Your task to perform on an android device: When is my next appointment? Image 0: 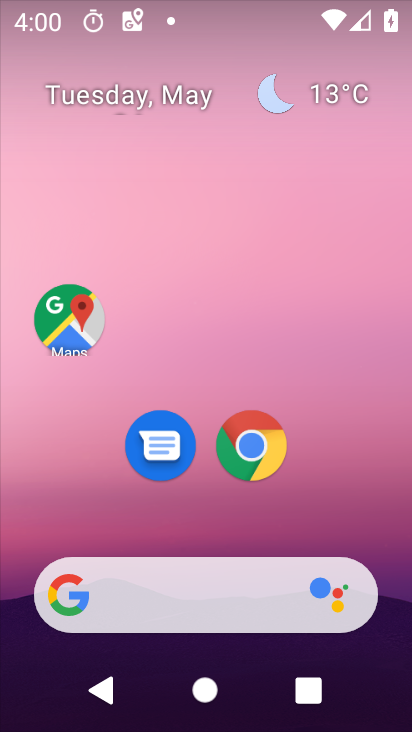
Step 0: drag from (212, 533) to (228, 59)
Your task to perform on an android device: When is my next appointment? Image 1: 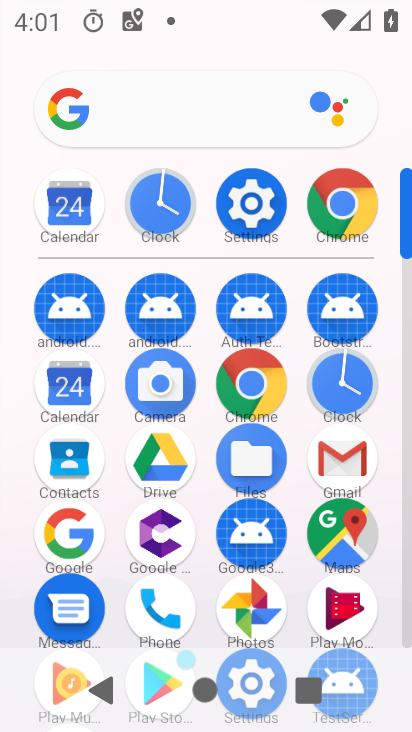
Step 1: click (68, 380)
Your task to perform on an android device: When is my next appointment? Image 2: 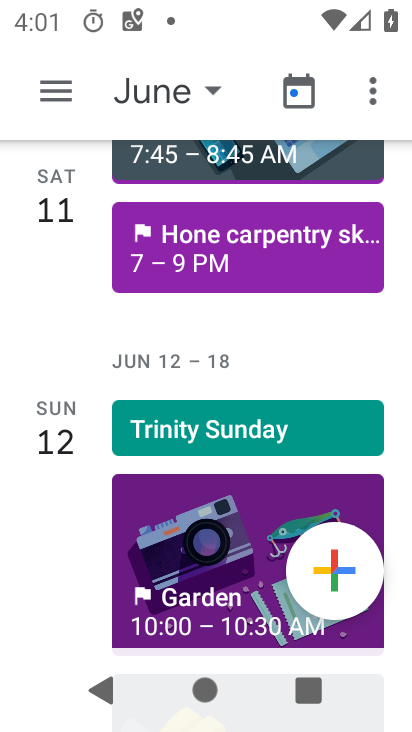
Step 2: click (78, 457)
Your task to perform on an android device: When is my next appointment? Image 3: 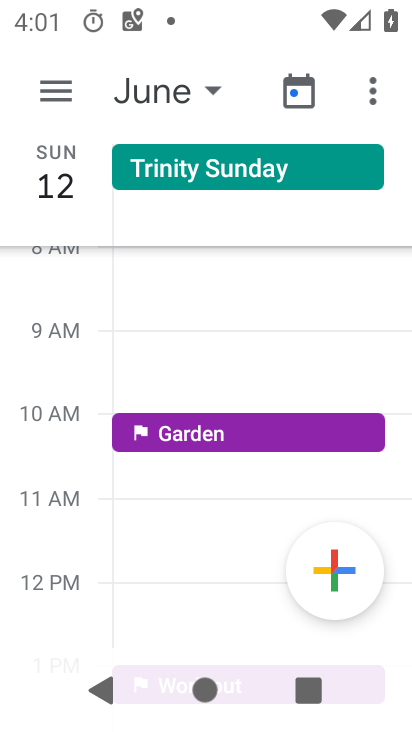
Step 3: click (61, 90)
Your task to perform on an android device: When is my next appointment? Image 4: 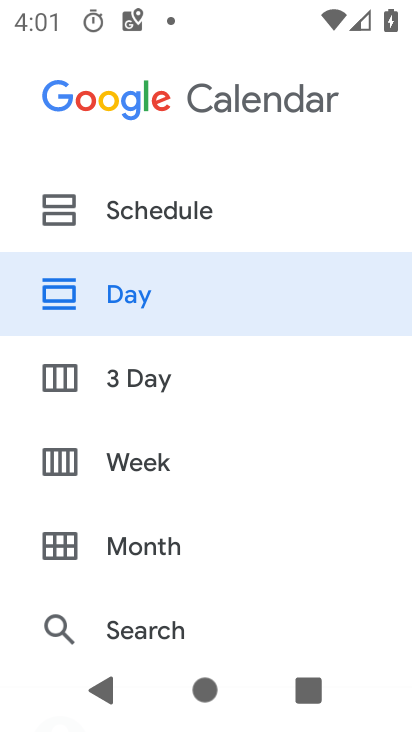
Step 4: click (105, 461)
Your task to perform on an android device: When is my next appointment? Image 5: 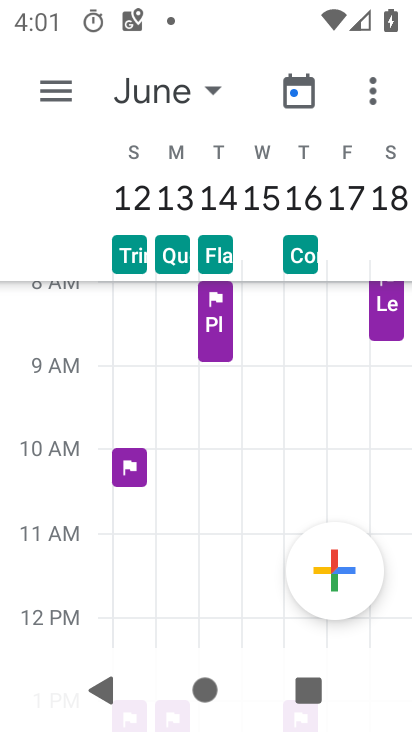
Step 5: click (209, 89)
Your task to perform on an android device: When is my next appointment? Image 6: 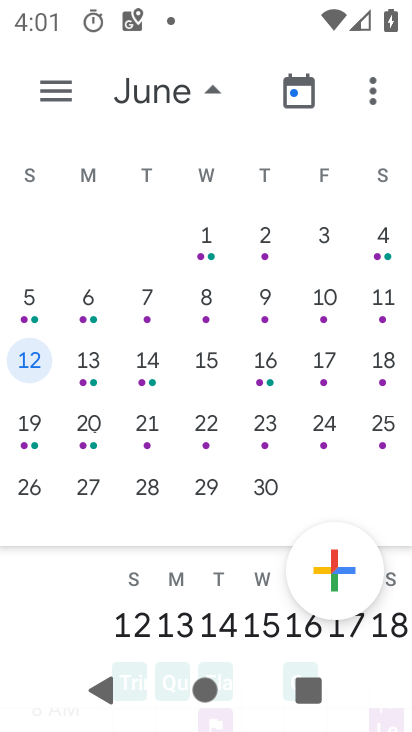
Step 6: drag from (81, 379) to (409, 347)
Your task to perform on an android device: When is my next appointment? Image 7: 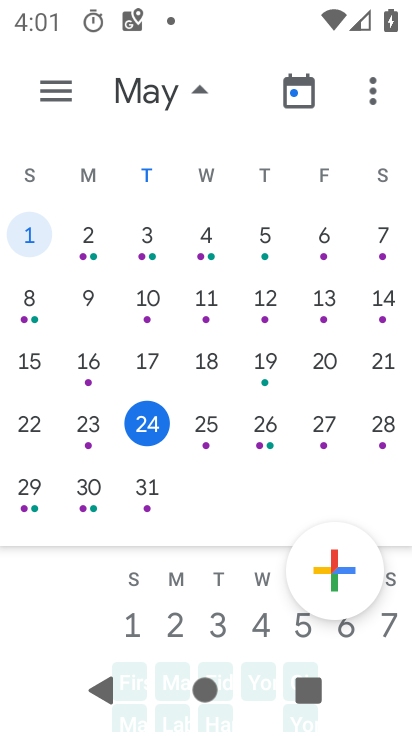
Step 7: click (139, 417)
Your task to perform on an android device: When is my next appointment? Image 8: 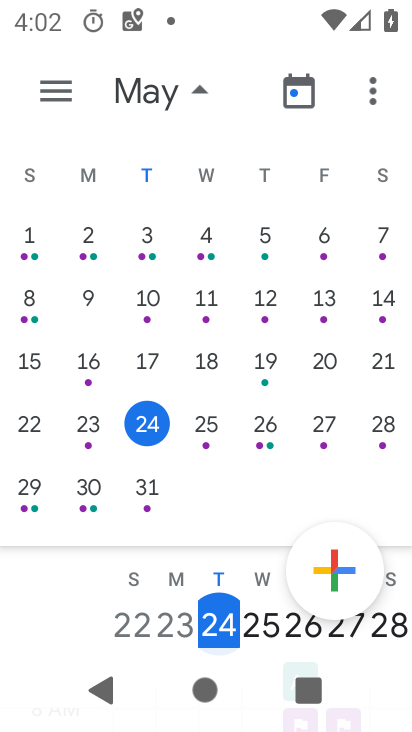
Step 8: click (204, 423)
Your task to perform on an android device: When is my next appointment? Image 9: 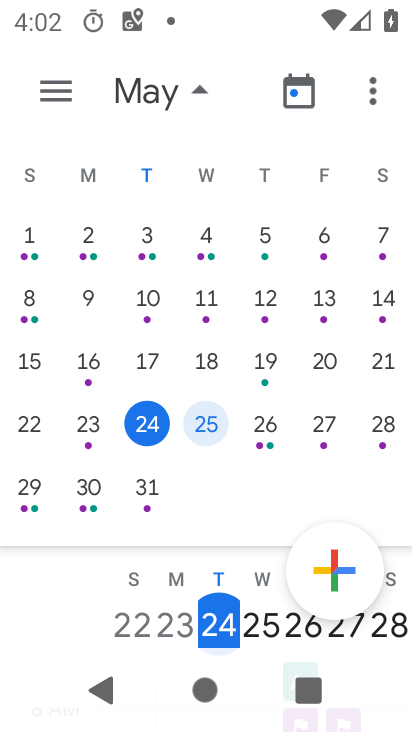
Step 9: click (208, 420)
Your task to perform on an android device: When is my next appointment? Image 10: 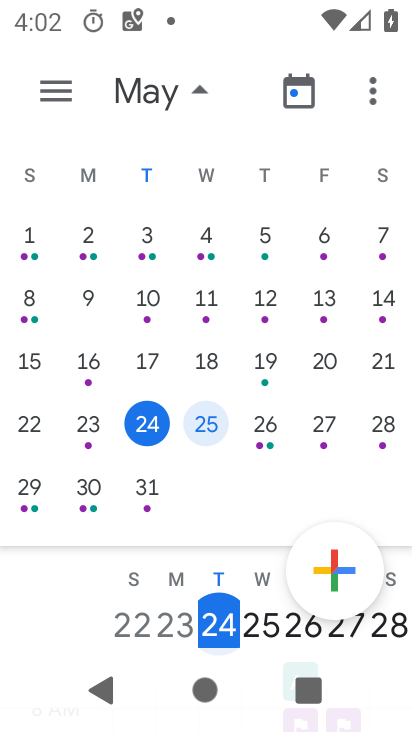
Step 10: click (198, 83)
Your task to perform on an android device: When is my next appointment? Image 11: 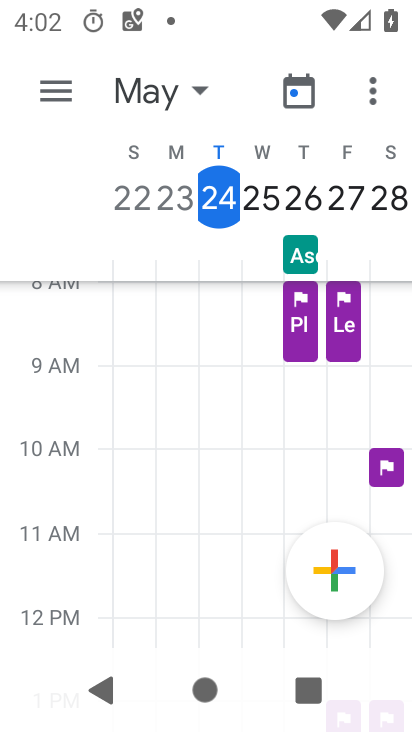
Step 11: click (230, 192)
Your task to perform on an android device: When is my next appointment? Image 12: 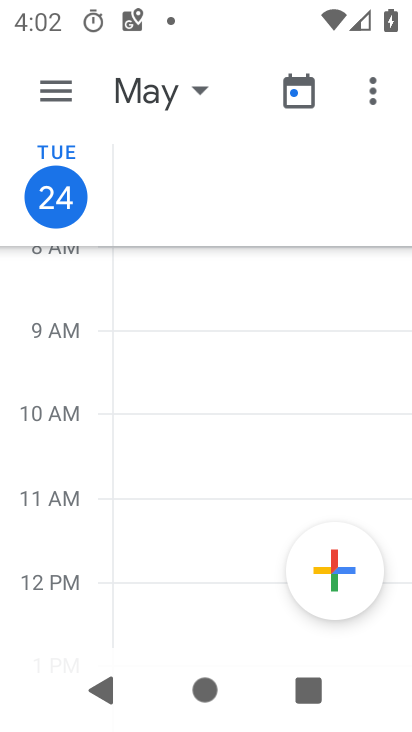
Step 12: click (101, 211)
Your task to perform on an android device: When is my next appointment? Image 13: 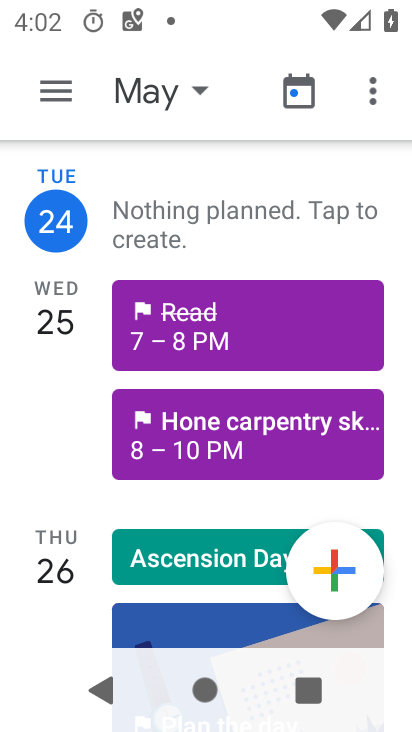
Step 13: task complete